Your task to perform on an android device: turn off notifications settings in the gmail app Image 0: 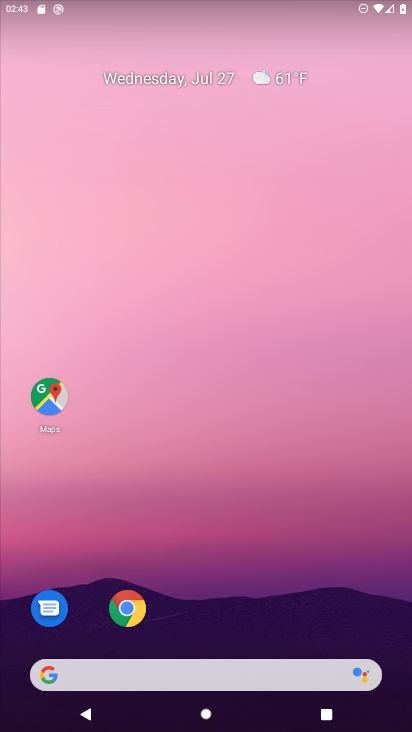
Step 0: drag from (290, 628) to (234, 44)
Your task to perform on an android device: turn off notifications settings in the gmail app Image 1: 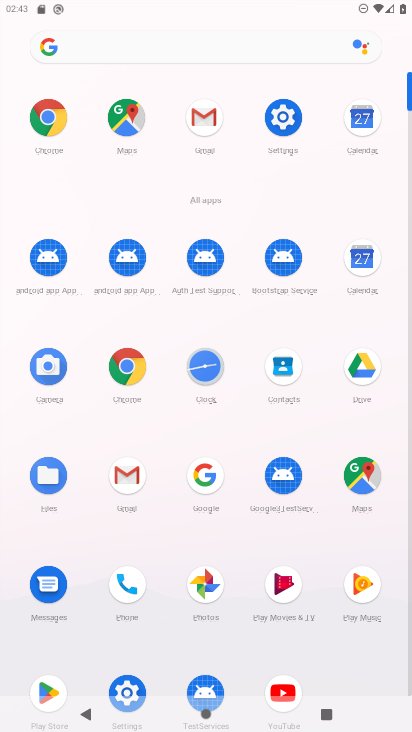
Step 1: click (204, 118)
Your task to perform on an android device: turn off notifications settings in the gmail app Image 2: 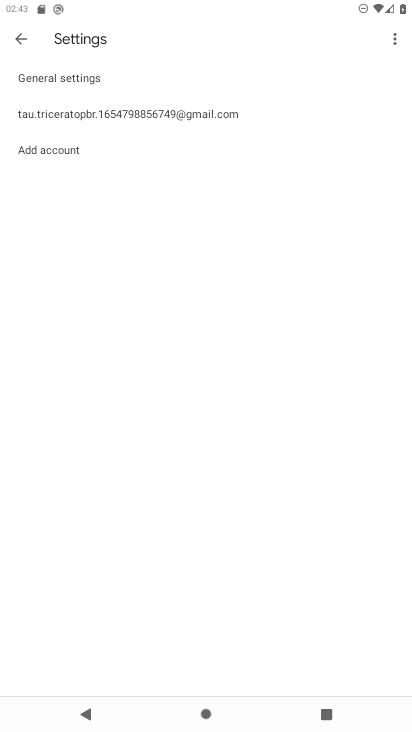
Step 2: click (189, 118)
Your task to perform on an android device: turn off notifications settings in the gmail app Image 3: 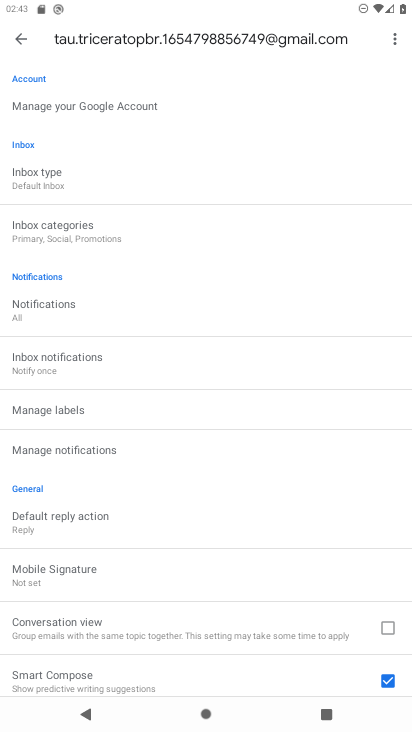
Step 3: click (167, 449)
Your task to perform on an android device: turn off notifications settings in the gmail app Image 4: 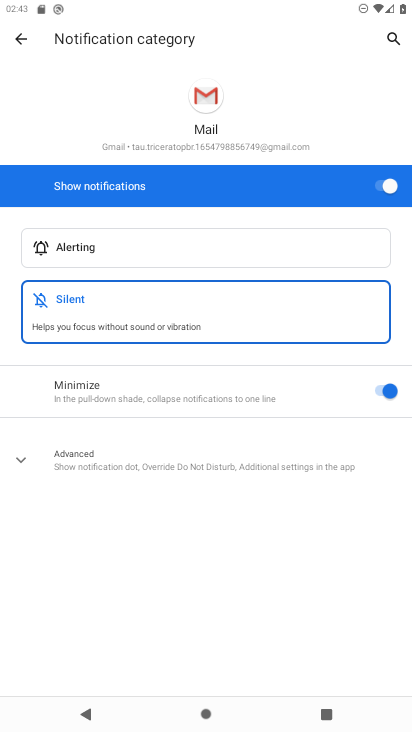
Step 4: click (386, 387)
Your task to perform on an android device: turn off notifications settings in the gmail app Image 5: 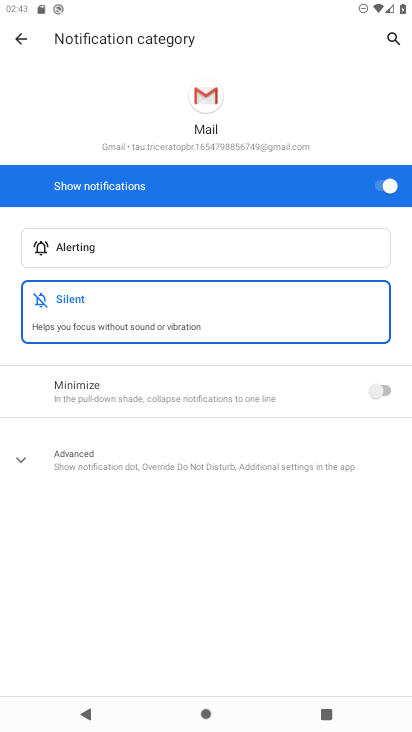
Step 5: task complete